Your task to perform on an android device: Turn on the flashlight Image 0: 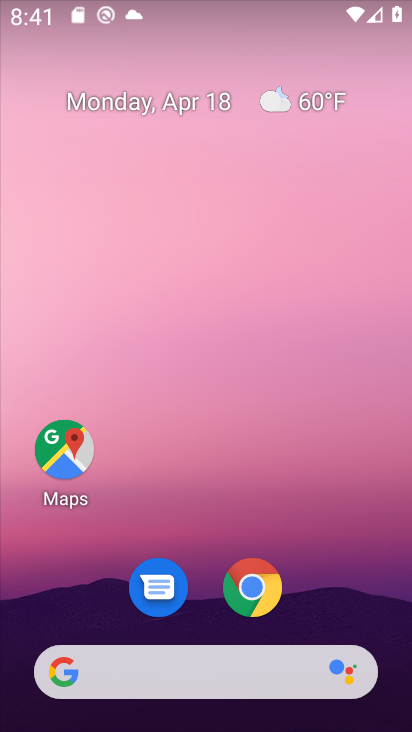
Step 0: drag from (332, 589) to (324, 46)
Your task to perform on an android device: Turn on the flashlight Image 1: 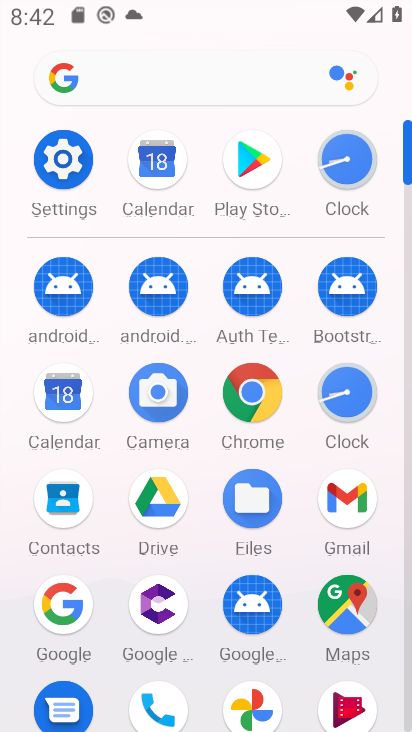
Step 1: click (85, 193)
Your task to perform on an android device: Turn on the flashlight Image 2: 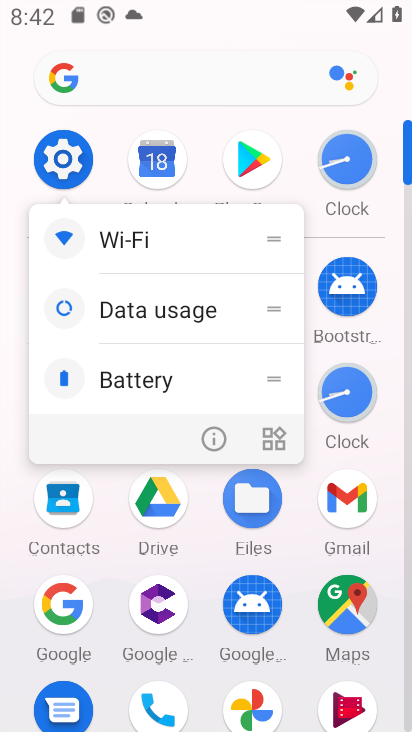
Step 2: click (69, 186)
Your task to perform on an android device: Turn on the flashlight Image 3: 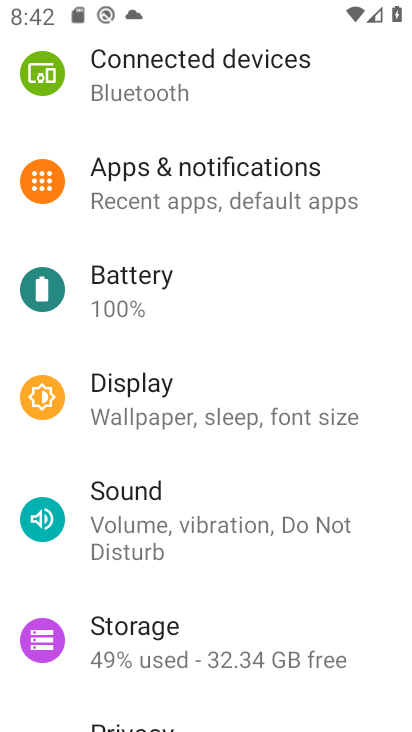
Step 3: task complete